Your task to perform on an android device: Go to settings Image 0: 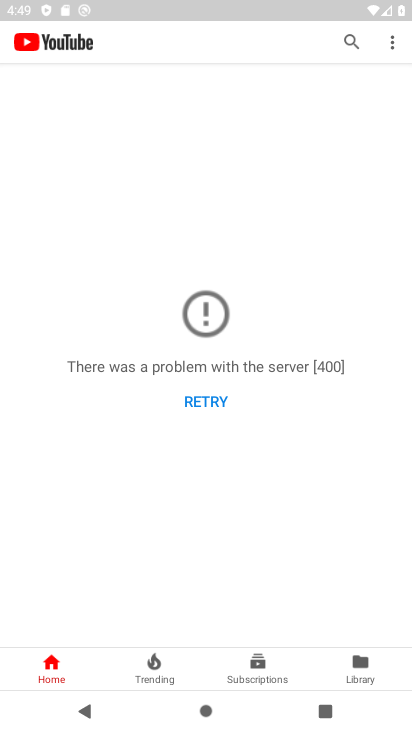
Step 0: press home button
Your task to perform on an android device: Go to settings Image 1: 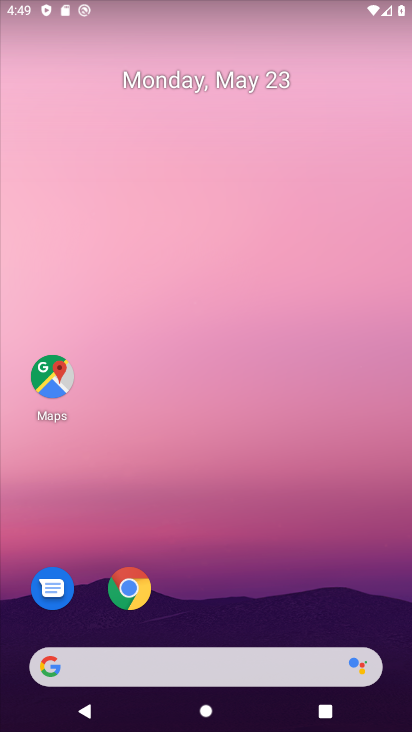
Step 1: drag from (229, 574) to (213, 150)
Your task to perform on an android device: Go to settings Image 2: 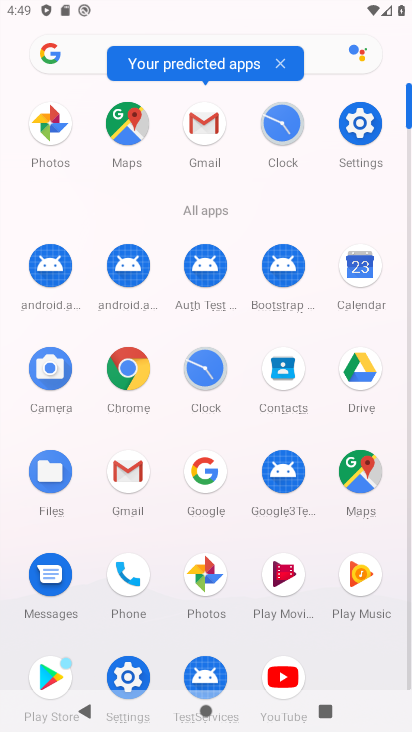
Step 2: click (365, 127)
Your task to perform on an android device: Go to settings Image 3: 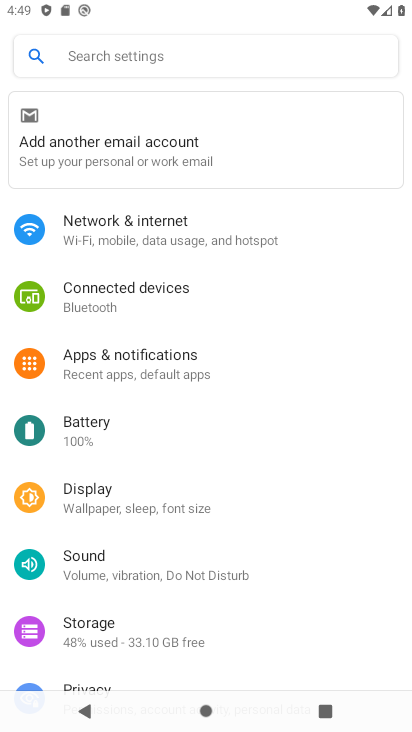
Step 3: task complete